Your task to perform on an android device: change alarm snooze length Image 0: 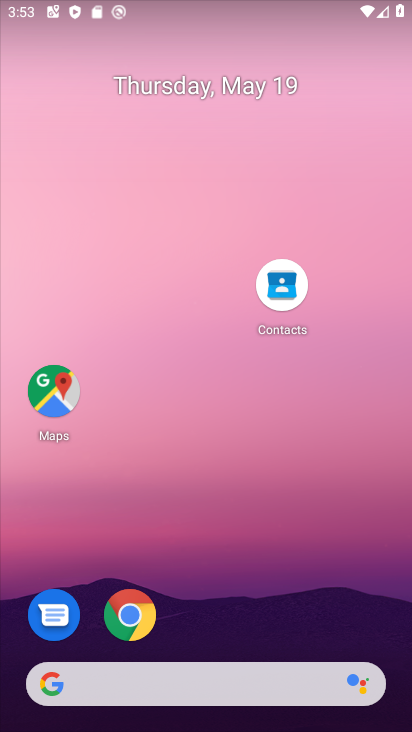
Step 0: drag from (243, 417) to (251, 117)
Your task to perform on an android device: change alarm snooze length Image 1: 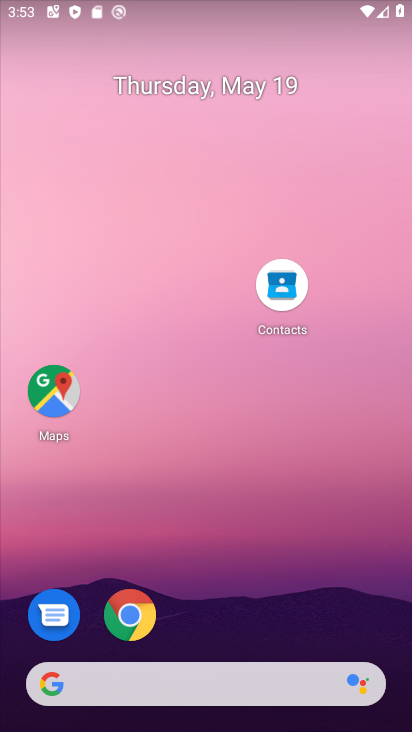
Step 1: drag from (177, 390) to (179, 58)
Your task to perform on an android device: change alarm snooze length Image 2: 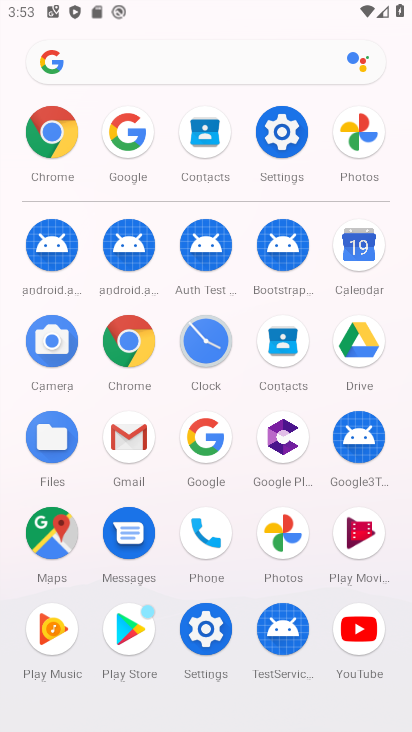
Step 2: drag from (262, 316) to (264, 178)
Your task to perform on an android device: change alarm snooze length Image 3: 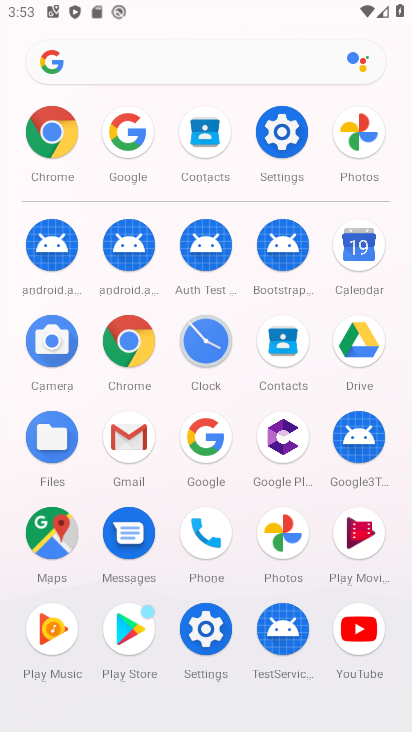
Step 3: click (213, 341)
Your task to perform on an android device: change alarm snooze length Image 4: 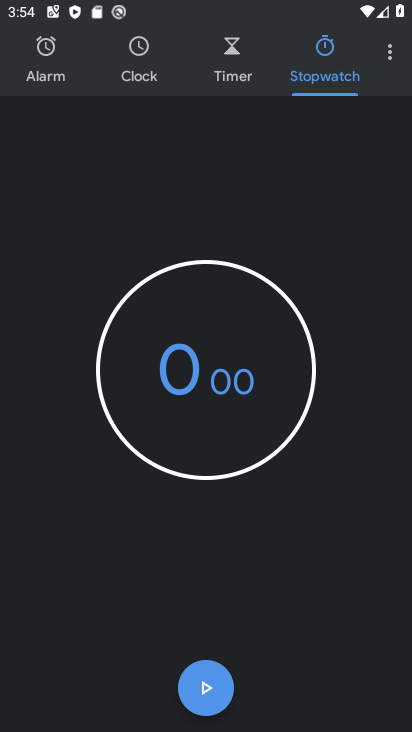
Step 4: click (389, 66)
Your task to perform on an android device: change alarm snooze length Image 5: 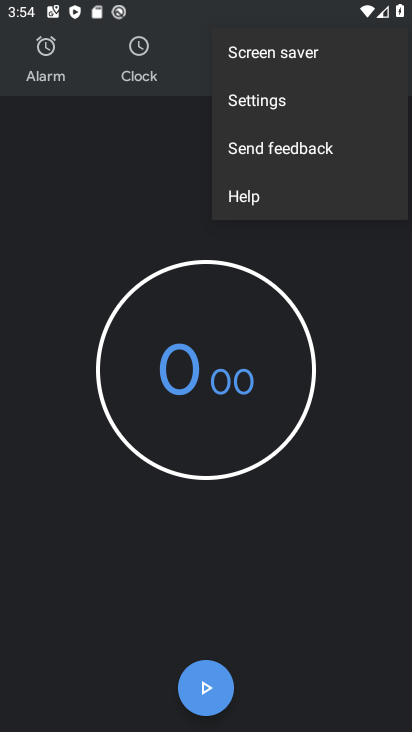
Step 5: click (313, 106)
Your task to perform on an android device: change alarm snooze length Image 6: 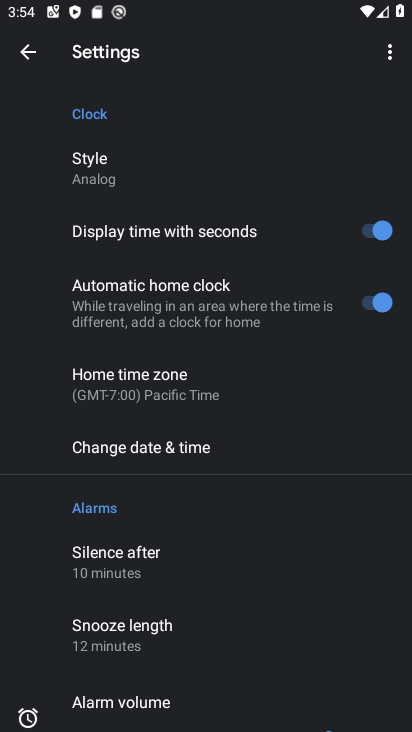
Step 6: drag from (125, 616) to (150, 324)
Your task to perform on an android device: change alarm snooze length Image 7: 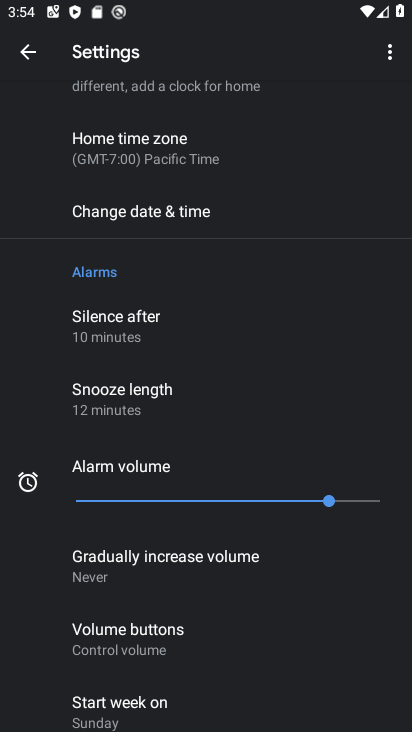
Step 7: click (169, 406)
Your task to perform on an android device: change alarm snooze length Image 8: 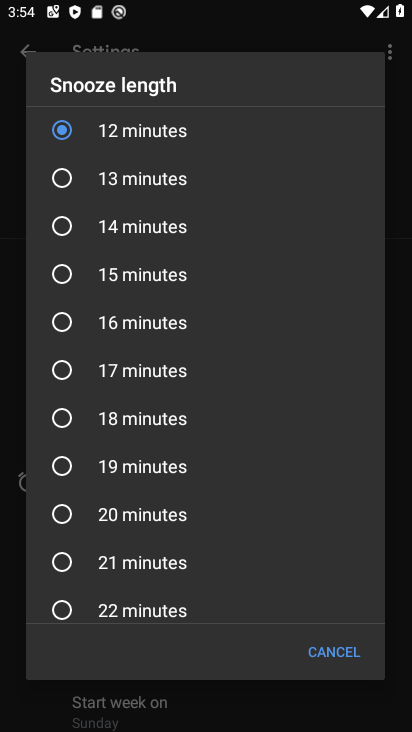
Step 8: click (73, 230)
Your task to perform on an android device: change alarm snooze length Image 9: 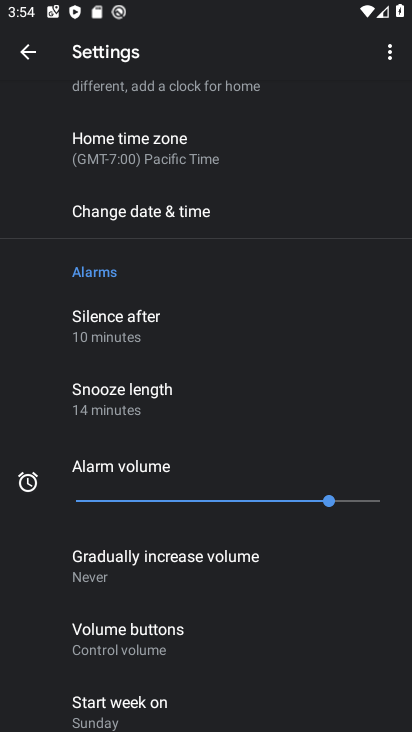
Step 9: task complete